Your task to perform on an android device: turn pop-ups on in chrome Image 0: 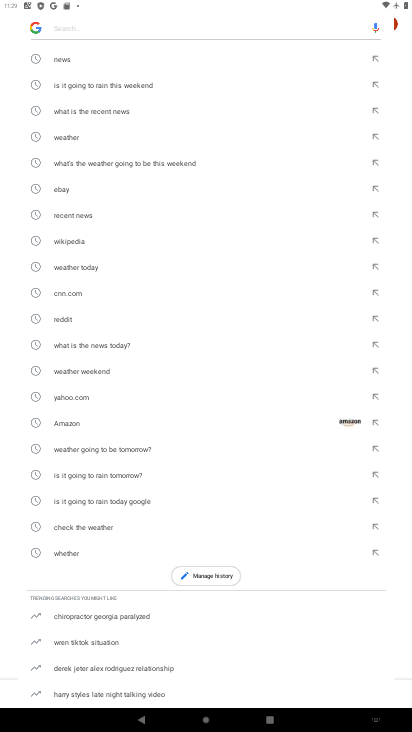
Step 0: press home button
Your task to perform on an android device: turn pop-ups on in chrome Image 1: 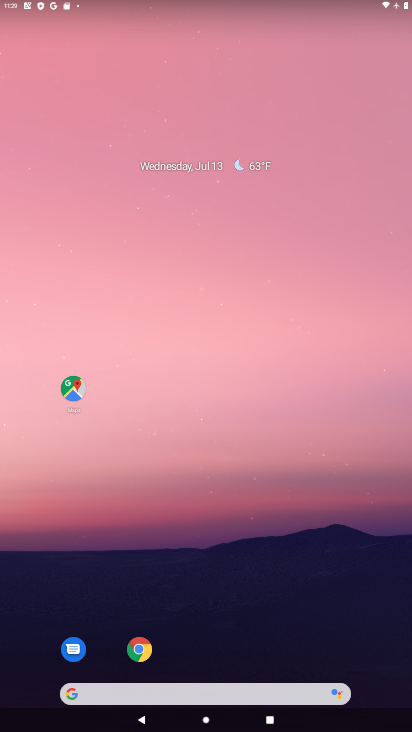
Step 1: drag from (263, 604) to (253, 242)
Your task to perform on an android device: turn pop-ups on in chrome Image 2: 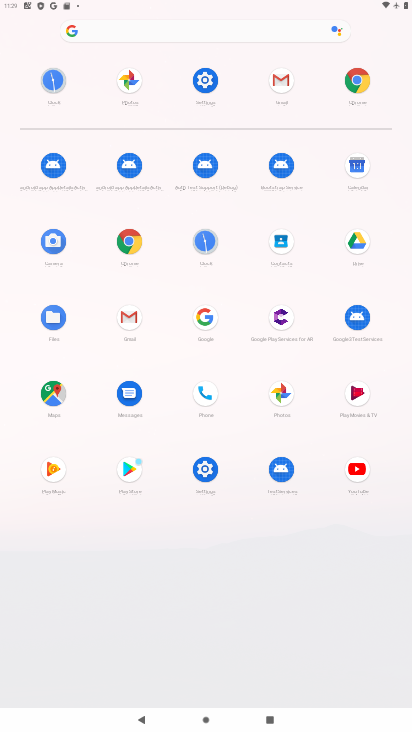
Step 2: click (358, 73)
Your task to perform on an android device: turn pop-ups on in chrome Image 3: 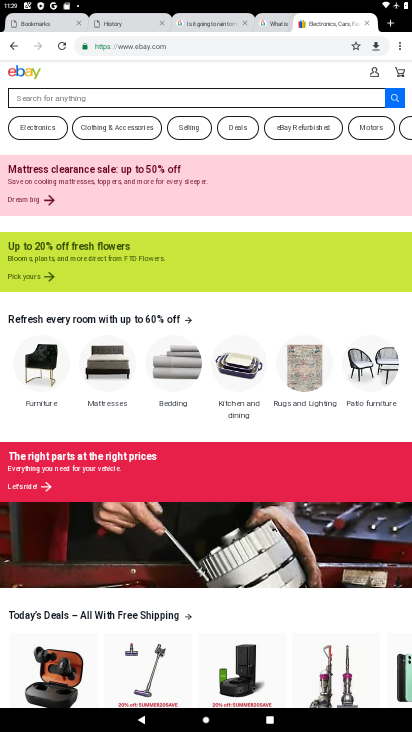
Step 3: click (401, 46)
Your task to perform on an android device: turn pop-ups on in chrome Image 4: 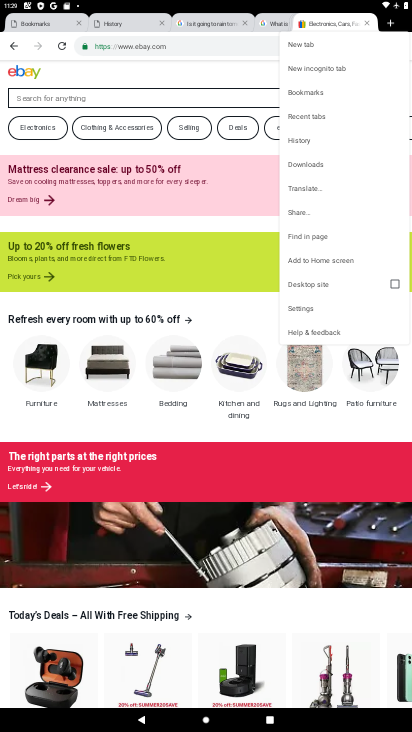
Step 4: click (316, 305)
Your task to perform on an android device: turn pop-ups on in chrome Image 5: 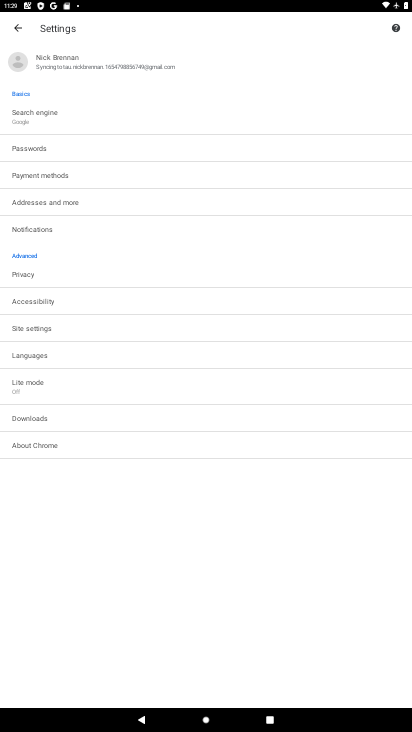
Step 5: click (61, 321)
Your task to perform on an android device: turn pop-ups on in chrome Image 6: 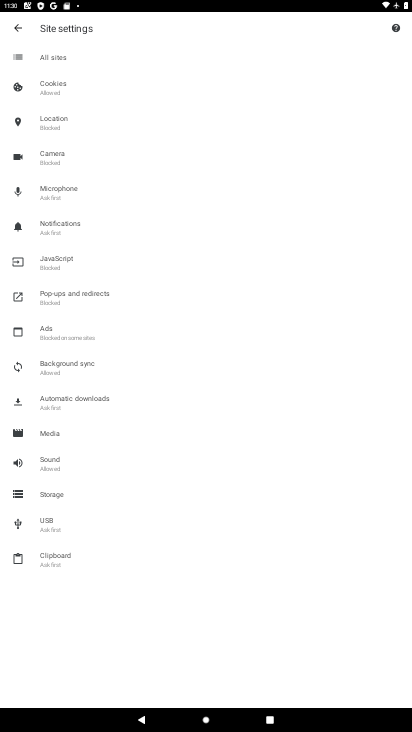
Step 6: click (101, 298)
Your task to perform on an android device: turn pop-ups on in chrome Image 7: 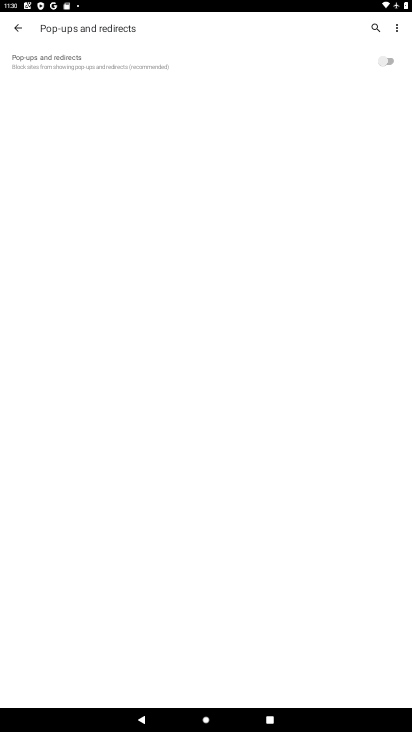
Step 7: task complete